Your task to perform on an android device: Turn off the flashlight Image 0: 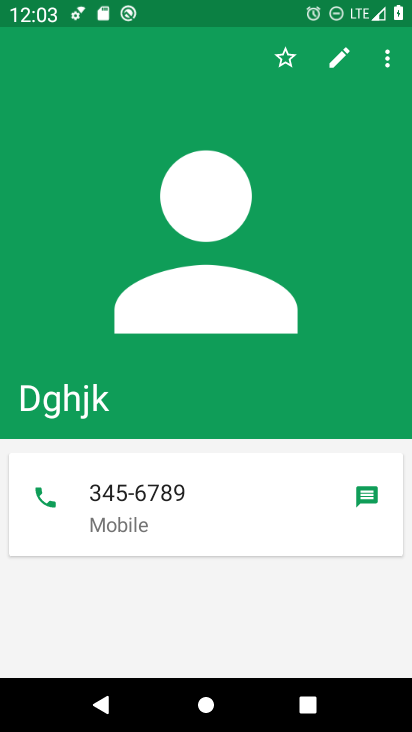
Step 0: press back button
Your task to perform on an android device: Turn off the flashlight Image 1: 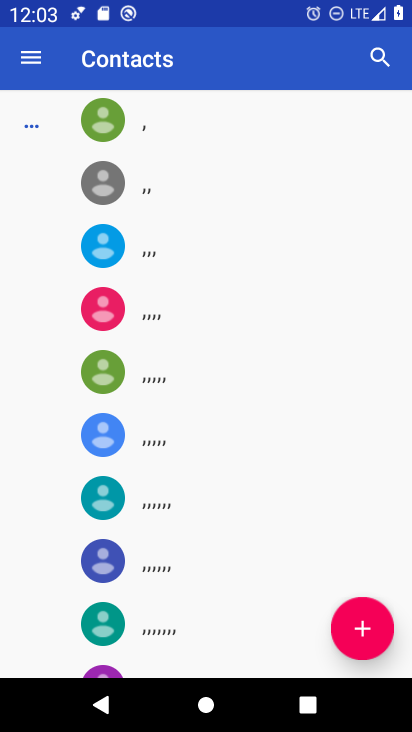
Step 1: press back button
Your task to perform on an android device: Turn off the flashlight Image 2: 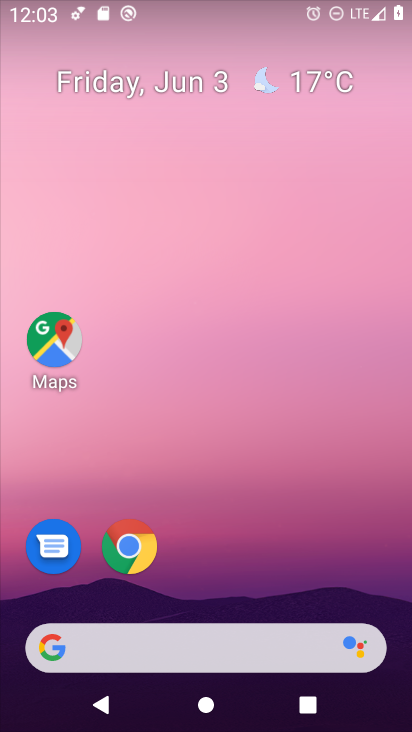
Step 2: drag from (249, 224) to (249, 70)
Your task to perform on an android device: Turn off the flashlight Image 3: 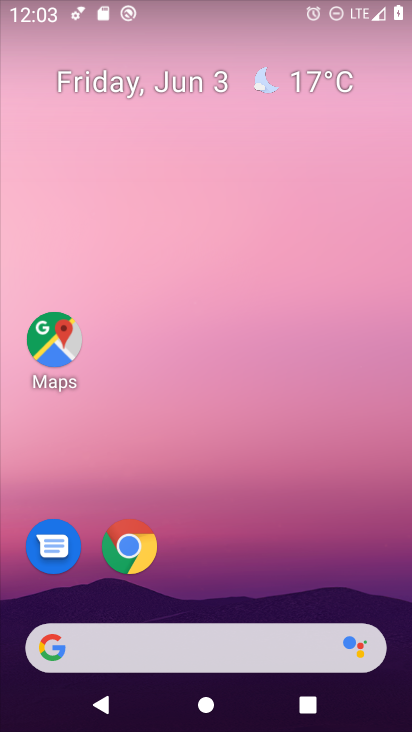
Step 3: drag from (259, 472) to (230, 60)
Your task to perform on an android device: Turn off the flashlight Image 4: 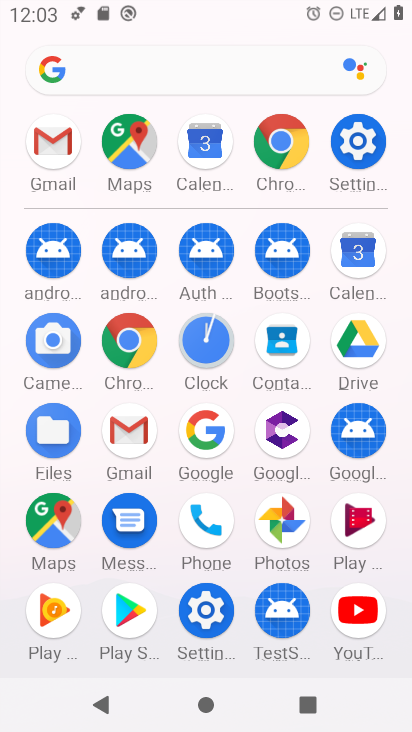
Step 4: drag from (15, 526) to (17, 210)
Your task to perform on an android device: Turn off the flashlight Image 5: 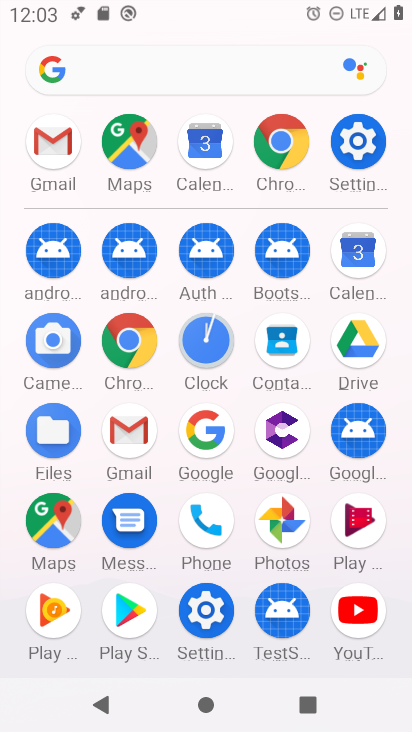
Step 5: click (206, 610)
Your task to perform on an android device: Turn off the flashlight Image 6: 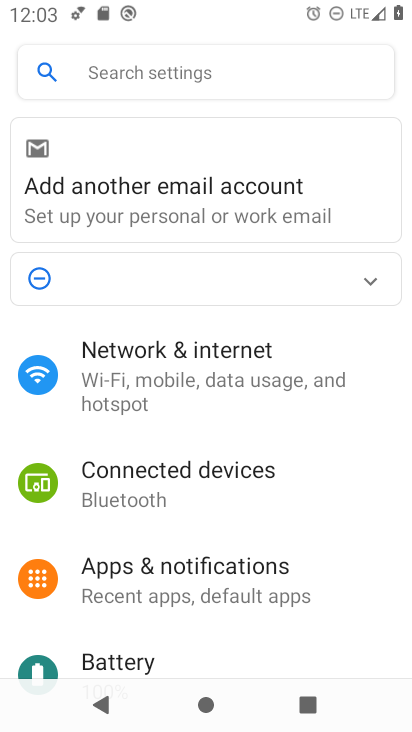
Step 6: click (234, 376)
Your task to perform on an android device: Turn off the flashlight Image 7: 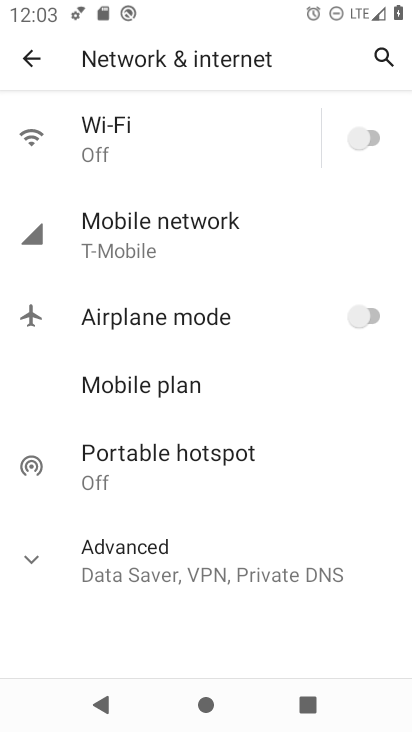
Step 7: click (37, 561)
Your task to perform on an android device: Turn off the flashlight Image 8: 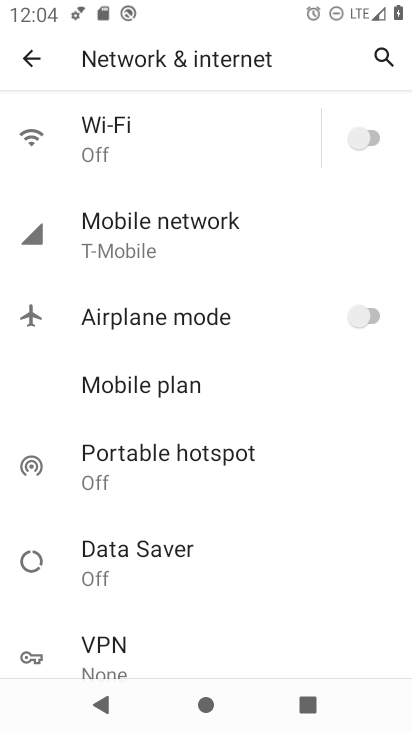
Step 8: task complete